Your task to perform on an android device: turn off notifications settings in the gmail app Image 0: 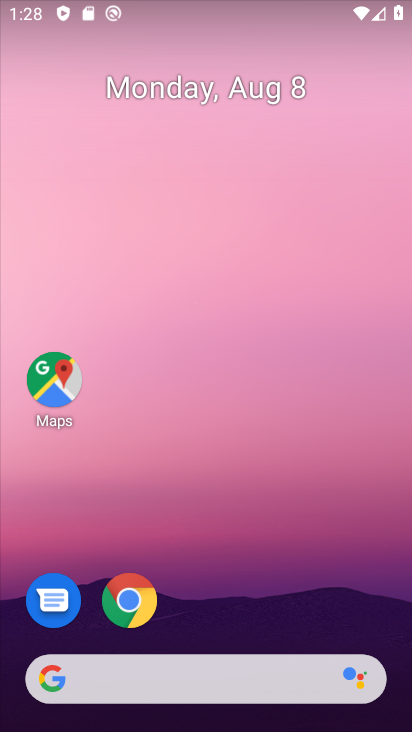
Step 0: press home button
Your task to perform on an android device: turn off notifications settings in the gmail app Image 1: 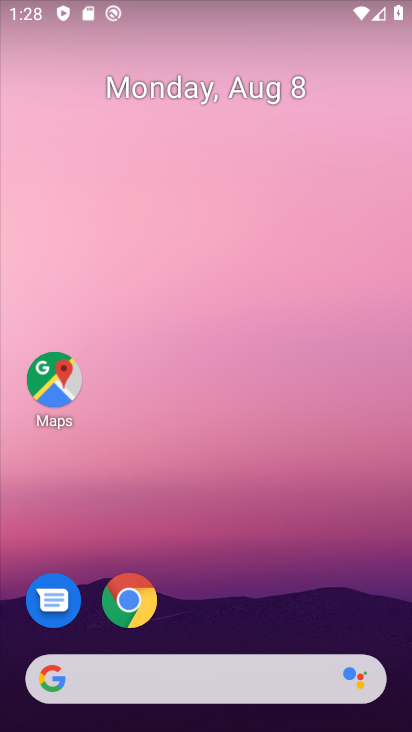
Step 1: drag from (217, 586) to (356, 38)
Your task to perform on an android device: turn off notifications settings in the gmail app Image 2: 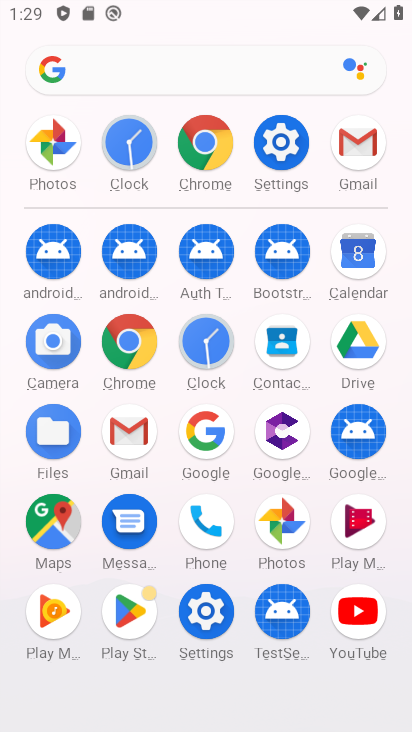
Step 2: click (143, 427)
Your task to perform on an android device: turn off notifications settings in the gmail app Image 3: 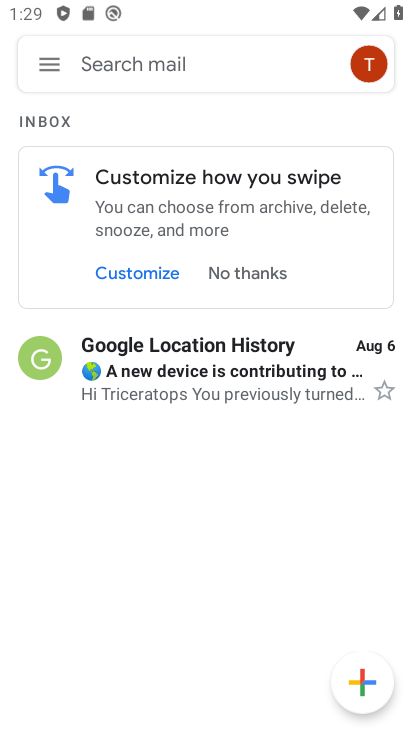
Step 3: press home button
Your task to perform on an android device: turn off notifications settings in the gmail app Image 4: 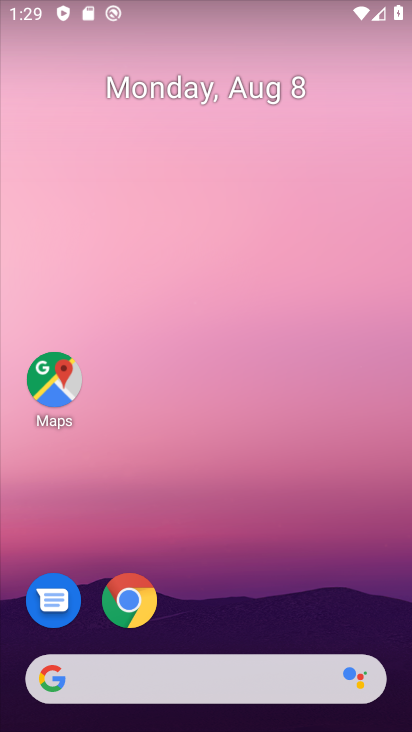
Step 4: drag from (301, 557) to (310, 129)
Your task to perform on an android device: turn off notifications settings in the gmail app Image 5: 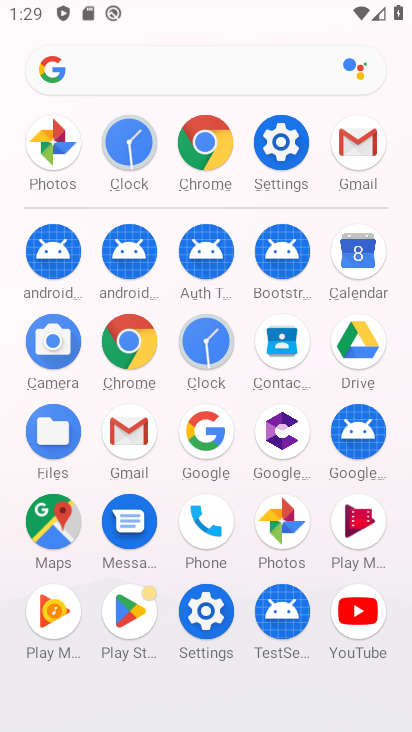
Step 5: click (124, 442)
Your task to perform on an android device: turn off notifications settings in the gmail app Image 6: 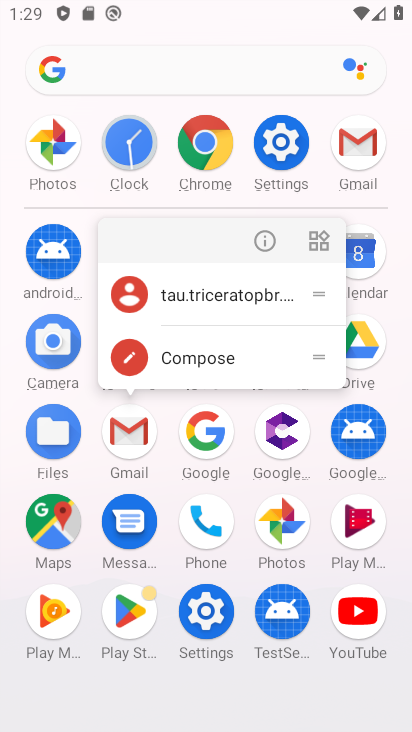
Step 6: click (273, 238)
Your task to perform on an android device: turn off notifications settings in the gmail app Image 7: 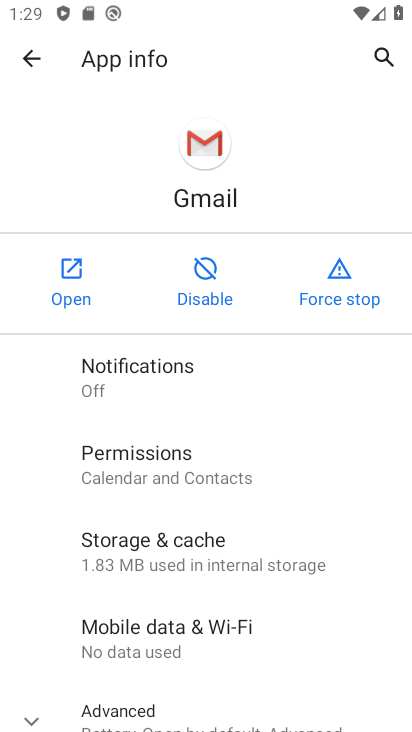
Step 7: click (166, 365)
Your task to perform on an android device: turn off notifications settings in the gmail app Image 8: 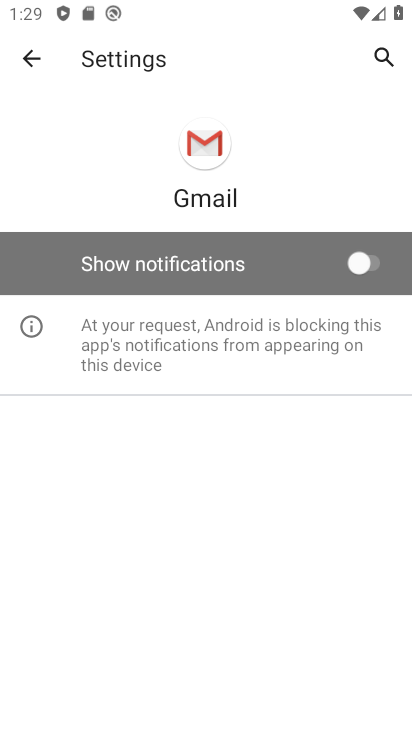
Step 8: task complete